Your task to perform on an android device: turn off airplane mode Image 0: 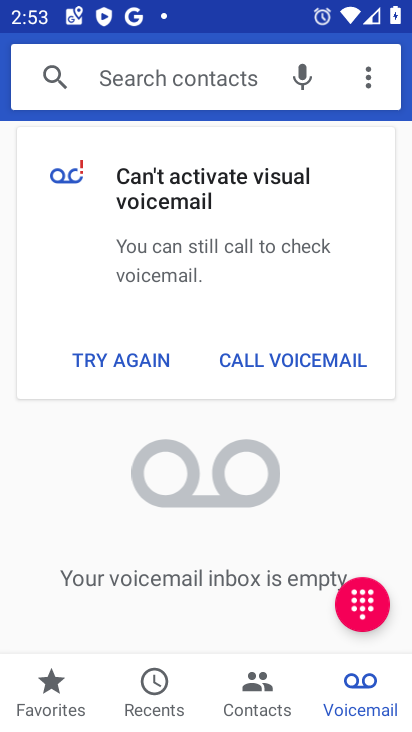
Step 0: press home button
Your task to perform on an android device: turn off airplane mode Image 1: 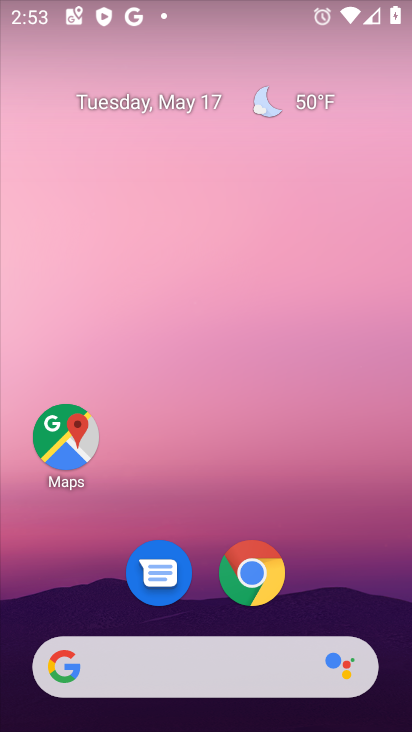
Step 1: drag from (294, 600) to (292, 147)
Your task to perform on an android device: turn off airplane mode Image 2: 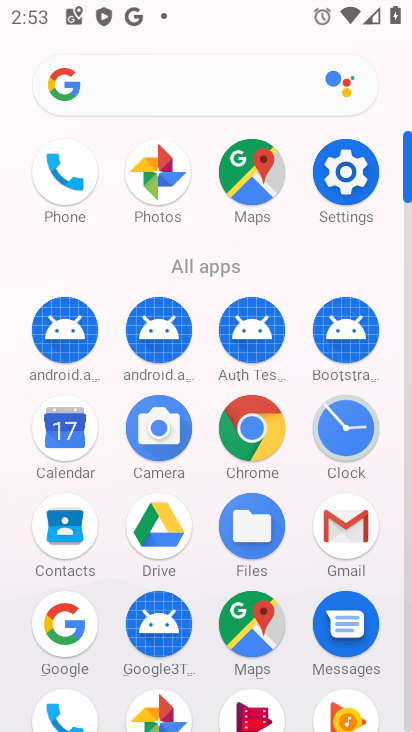
Step 2: click (327, 197)
Your task to perform on an android device: turn off airplane mode Image 3: 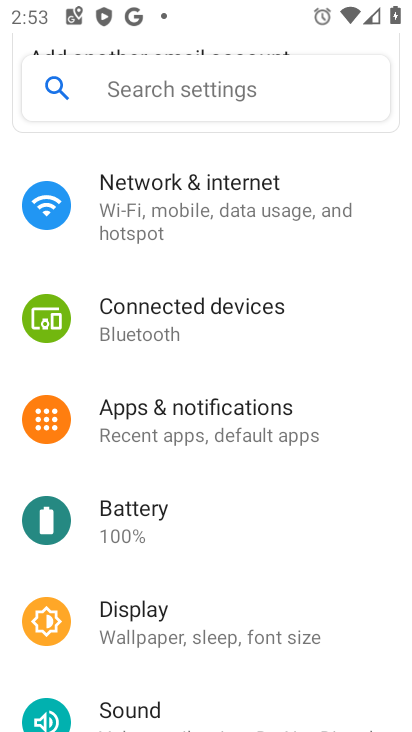
Step 3: click (204, 206)
Your task to perform on an android device: turn off airplane mode Image 4: 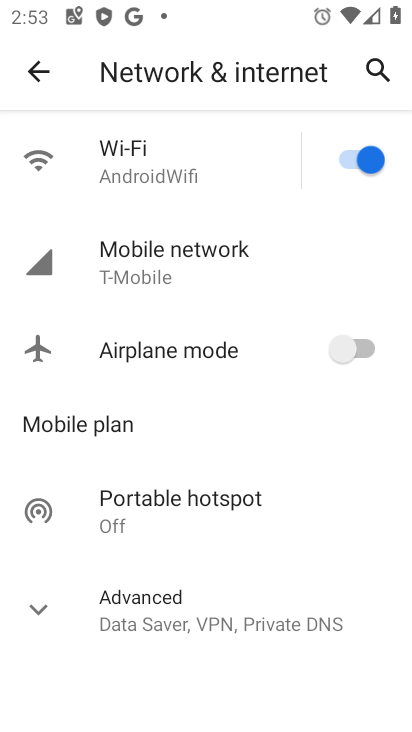
Step 4: task complete